Your task to perform on an android device: change timer sound Image 0: 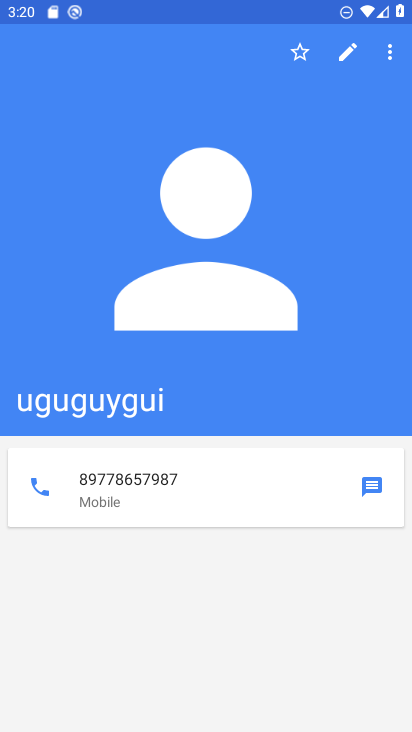
Step 0: press home button
Your task to perform on an android device: change timer sound Image 1: 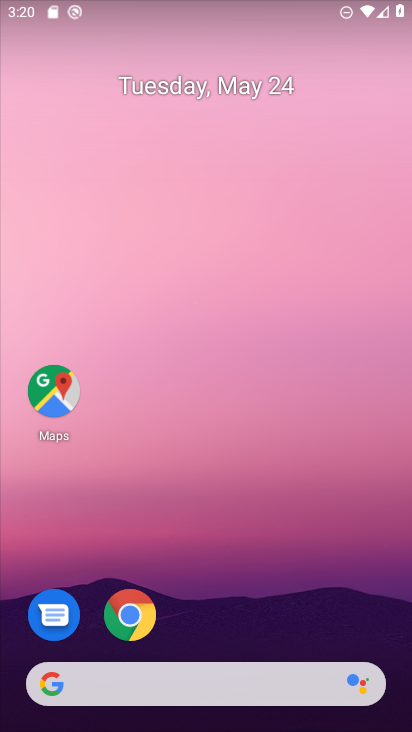
Step 1: drag from (277, 679) to (318, 378)
Your task to perform on an android device: change timer sound Image 2: 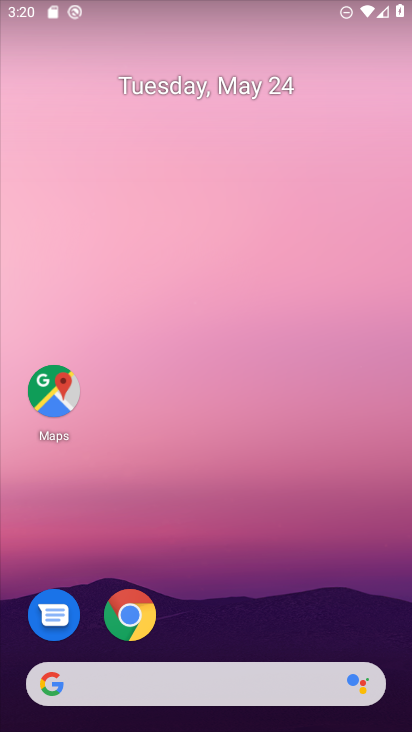
Step 2: drag from (233, 645) to (326, 11)
Your task to perform on an android device: change timer sound Image 3: 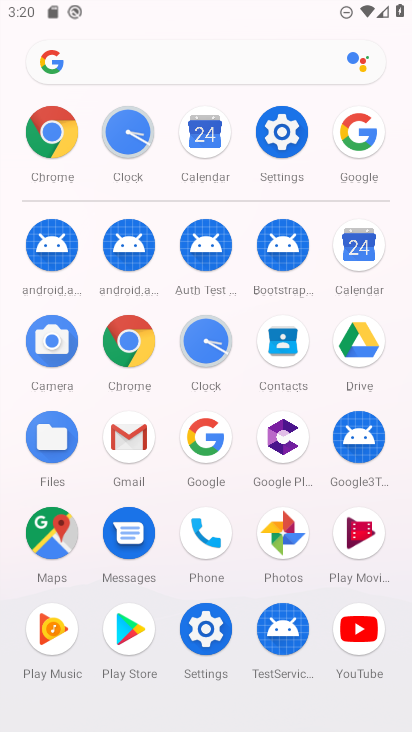
Step 3: click (213, 331)
Your task to perform on an android device: change timer sound Image 4: 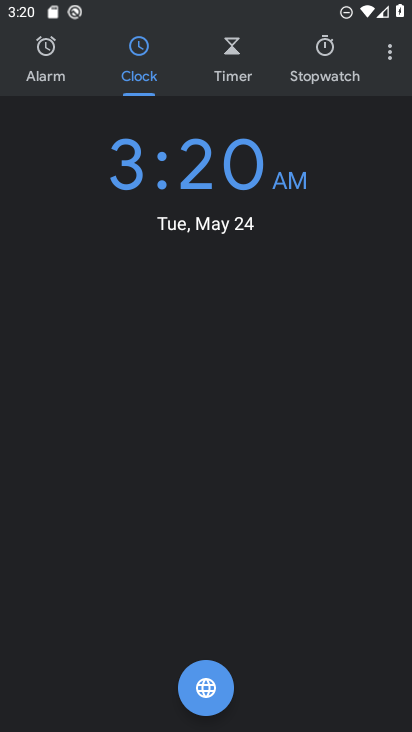
Step 4: click (389, 58)
Your task to perform on an android device: change timer sound Image 5: 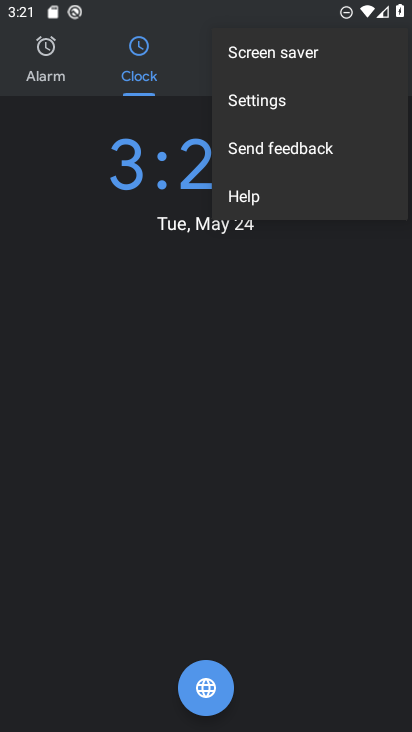
Step 5: click (274, 106)
Your task to perform on an android device: change timer sound Image 6: 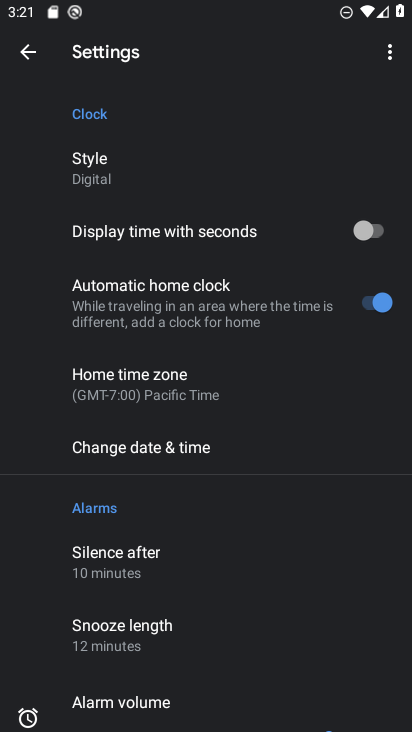
Step 6: drag from (156, 542) to (172, 350)
Your task to perform on an android device: change timer sound Image 7: 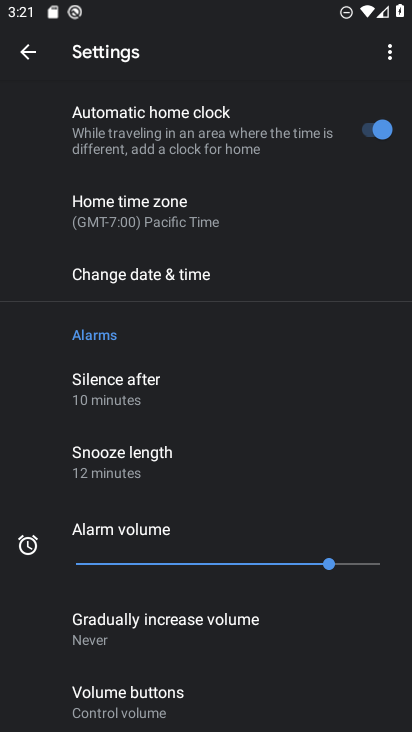
Step 7: drag from (113, 709) to (146, 300)
Your task to perform on an android device: change timer sound Image 8: 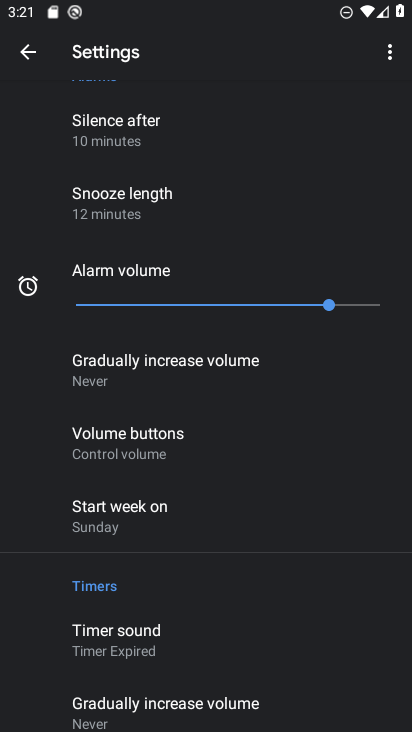
Step 8: drag from (212, 441) to (234, 190)
Your task to perform on an android device: change timer sound Image 9: 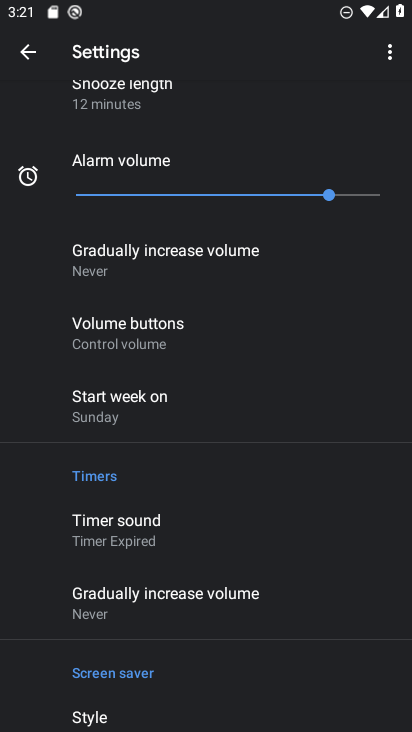
Step 9: click (184, 536)
Your task to perform on an android device: change timer sound Image 10: 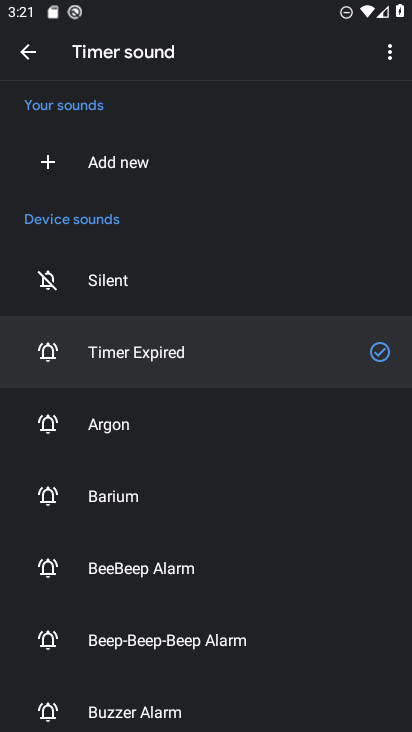
Step 10: click (148, 447)
Your task to perform on an android device: change timer sound Image 11: 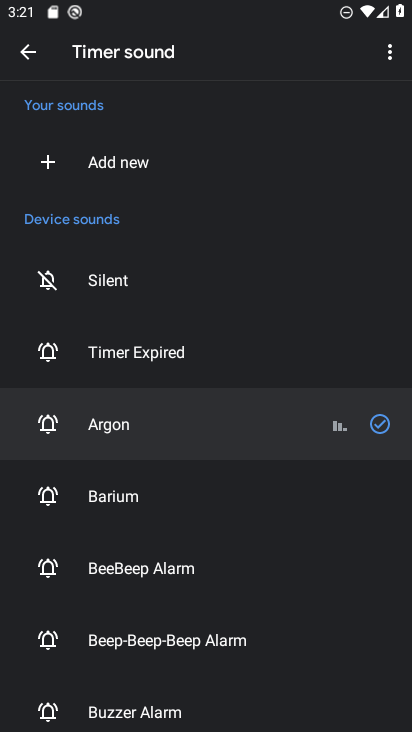
Step 11: task complete